Your task to perform on an android device: turn off translation in the chrome app Image 0: 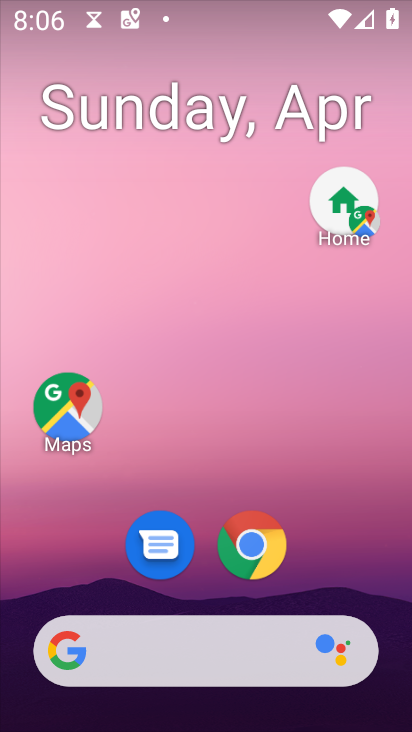
Step 0: drag from (332, 485) to (313, 342)
Your task to perform on an android device: turn off translation in the chrome app Image 1: 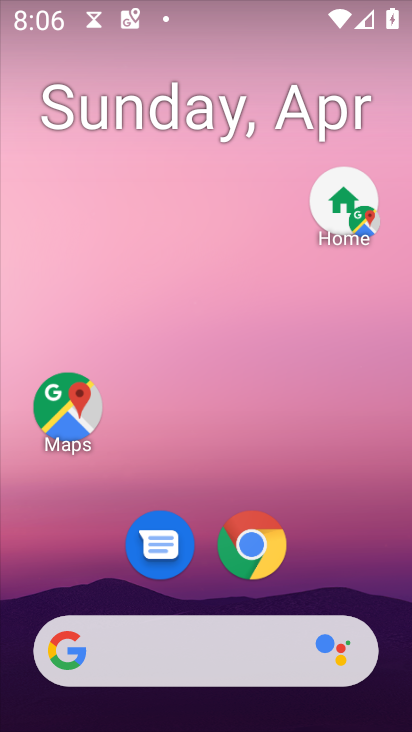
Step 1: click (256, 538)
Your task to perform on an android device: turn off translation in the chrome app Image 2: 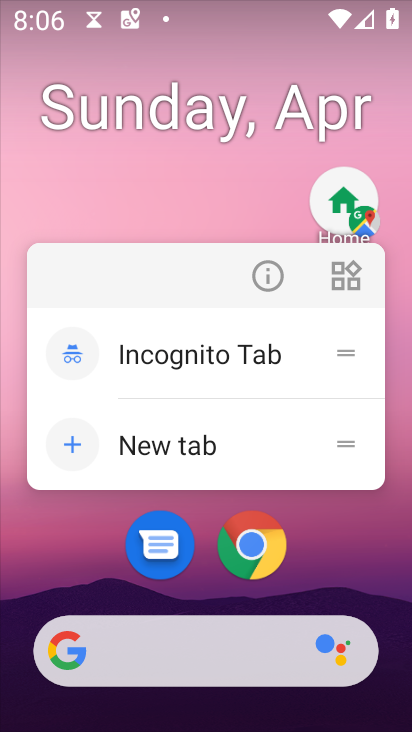
Step 2: click (256, 538)
Your task to perform on an android device: turn off translation in the chrome app Image 3: 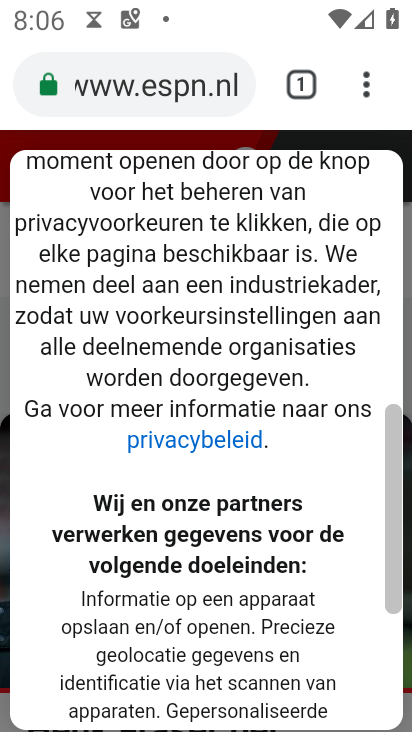
Step 3: click (356, 82)
Your task to perform on an android device: turn off translation in the chrome app Image 4: 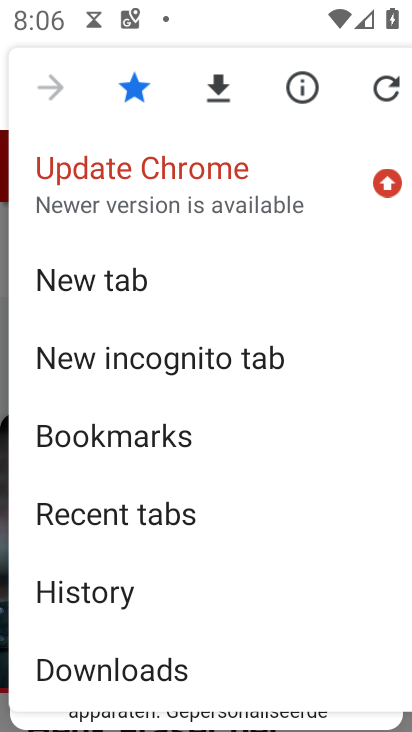
Step 4: drag from (221, 644) to (281, 263)
Your task to perform on an android device: turn off translation in the chrome app Image 5: 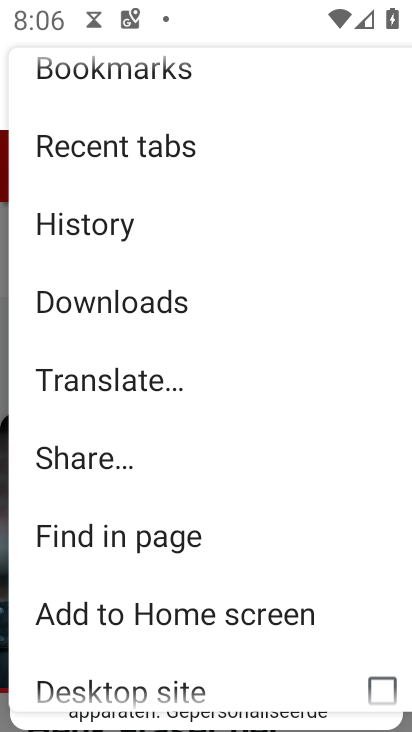
Step 5: click (142, 371)
Your task to perform on an android device: turn off translation in the chrome app Image 6: 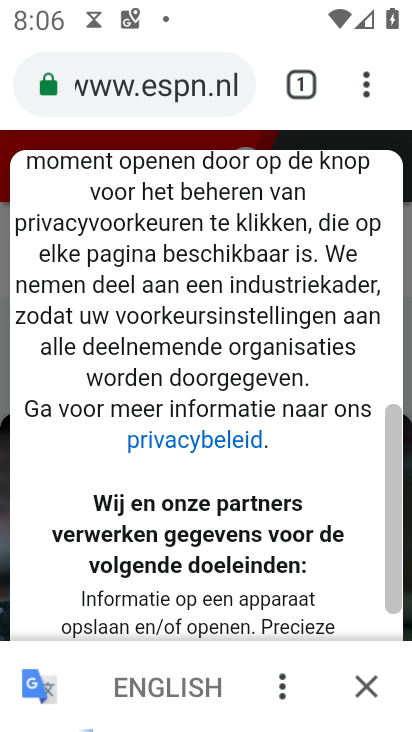
Step 6: click (358, 75)
Your task to perform on an android device: turn off translation in the chrome app Image 7: 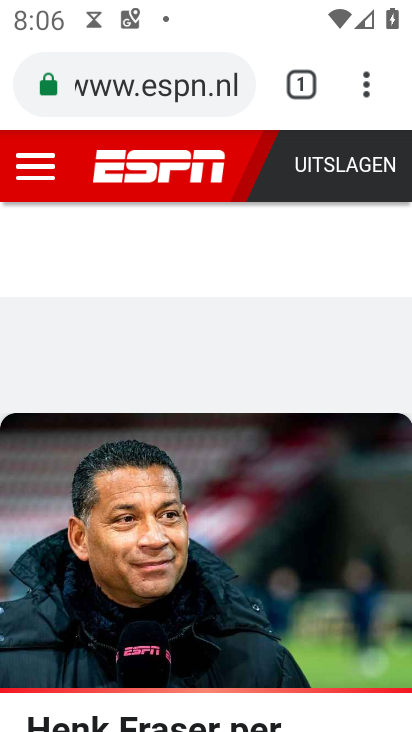
Step 7: click (360, 83)
Your task to perform on an android device: turn off translation in the chrome app Image 8: 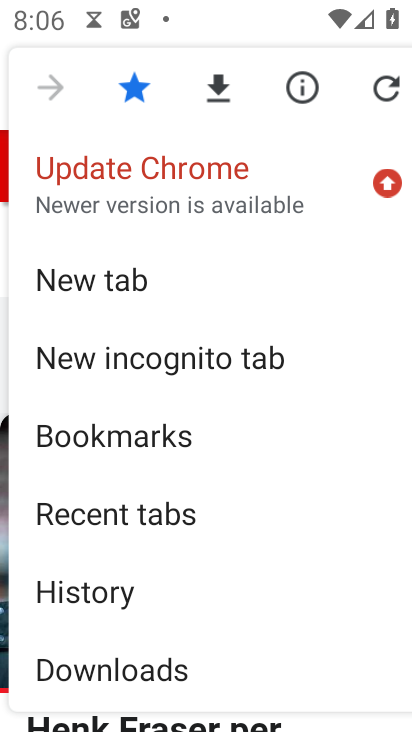
Step 8: drag from (257, 651) to (316, 121)
Your task to perform on an android device: turn off translation in the chrome app Image 9: 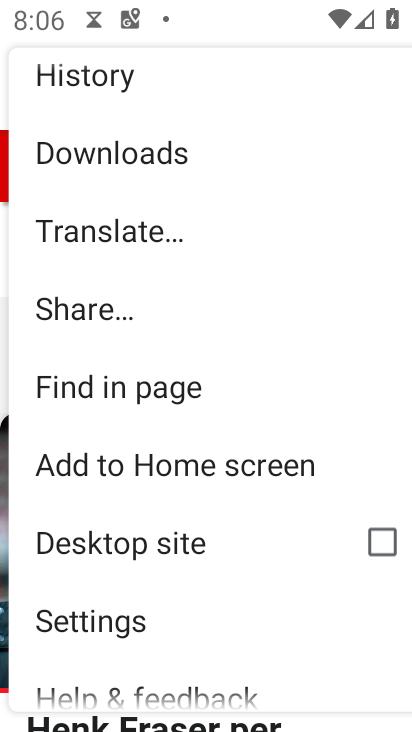
Step 9: click (160, 612)
Your task to perform on an android device: turn off translation in the chrome app Image 10: 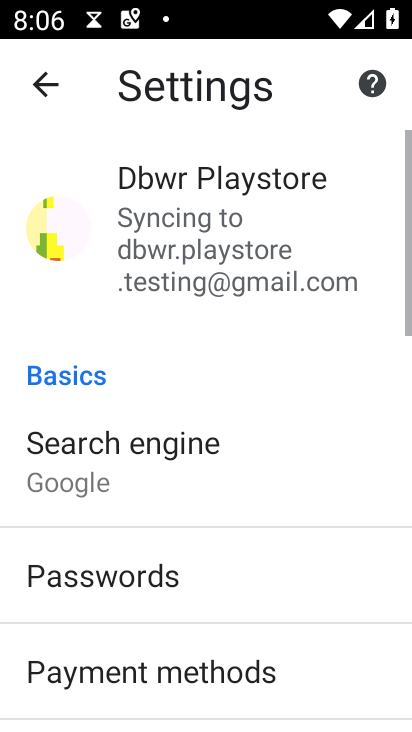
Step 10: drag from (197, 644) to (297, 222)
Your task to perform on an android device: turn off translation in the chrome app Image 11: 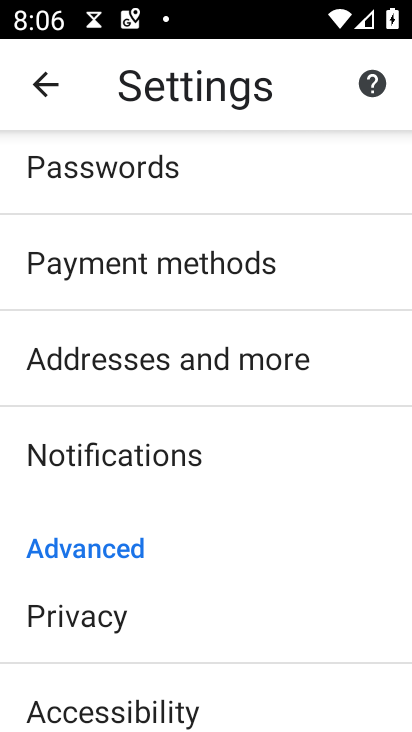
Step 11: drag from (149, 656) to (273, 185)
Your task to perform on an android device: turn off translation in the chrome app Image 12: 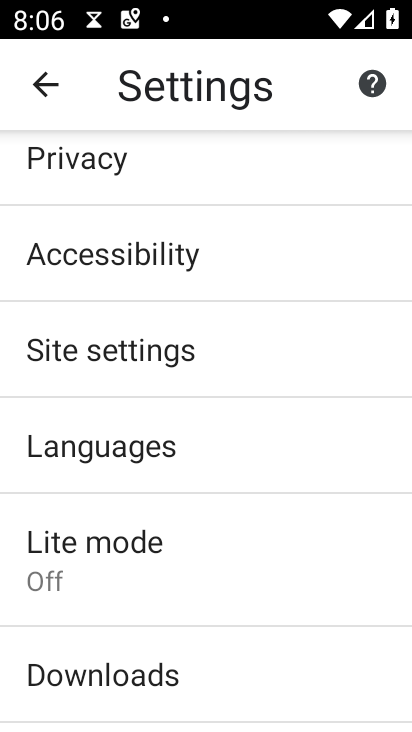
Step 12: click (188, 436)
Your task to perform on an android device: turn off translation in the chrome app Image 13: 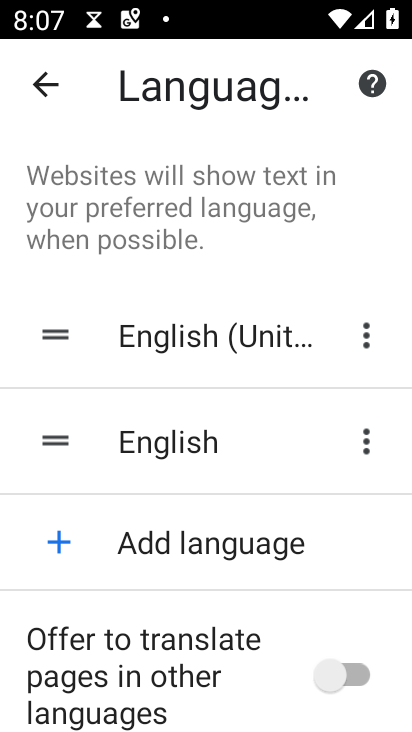
Step 13: task complete